Your task to perform on an android device: toggle priority inbox in the gmail app Image 0: 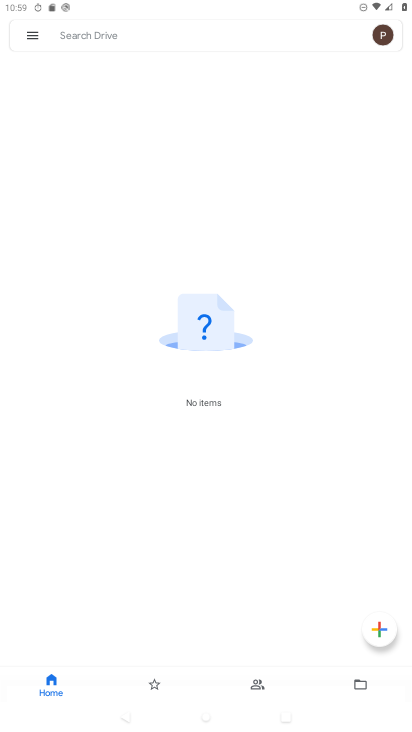
Step 0: press home button
Your task to perform on an android device: toggle priority inbox in the gmail app Image 1: 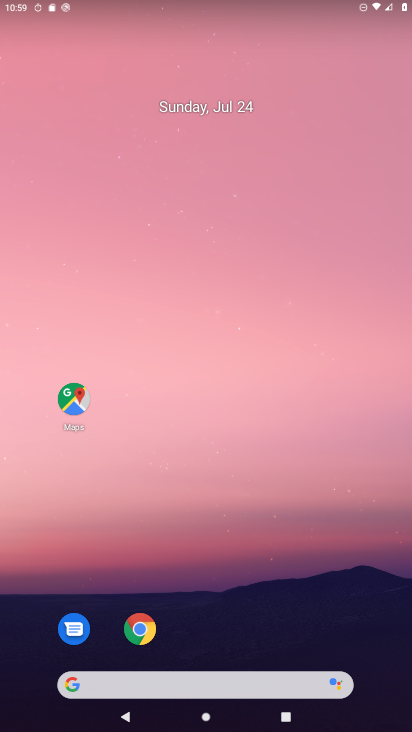
Step 1: drag from (221, 625) to (310, 55)
Your task to perform on an android device: toggle priority inbox in the gmail app Image 2: 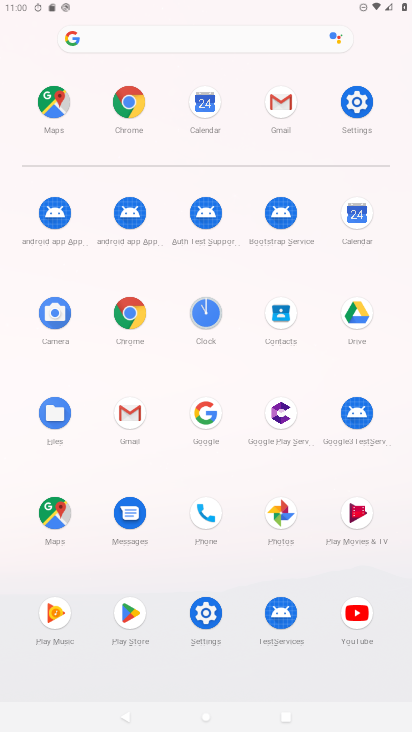
Step 2: click (134, 430)
Your task to perform on an android device: toggle priority inbox in the gmail app Image 3: 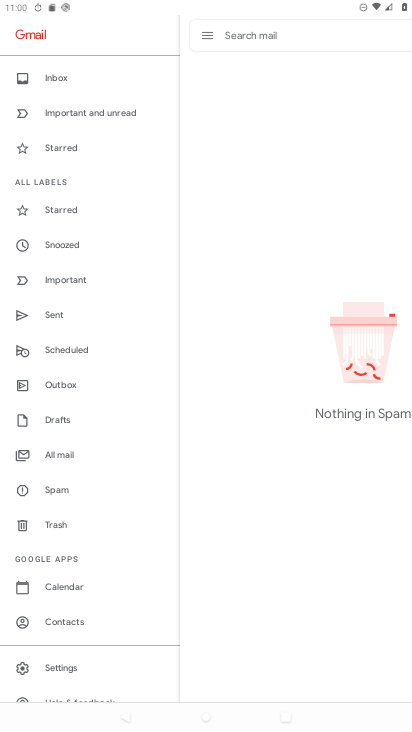
Step 3: click (78, 670)
Your task to perform on an android device: toggle priority inbox in the gmail app Image 4: 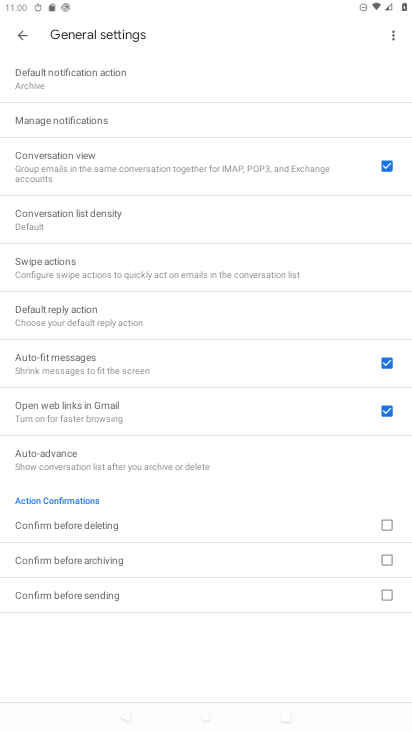
Step 4: click (19, 29)
Your task to perform on an android device: toggle priority inbox in the gmail app Image 5: 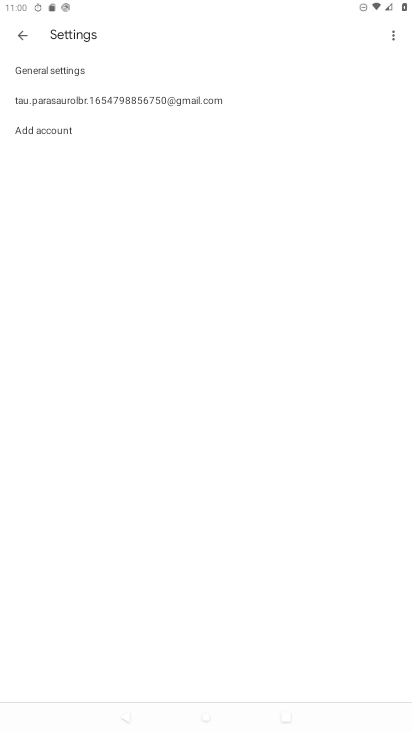
Step 5: click (97, 104)
Your task to perform on an android device: toggle priority inbox in the gmail app Image 6: 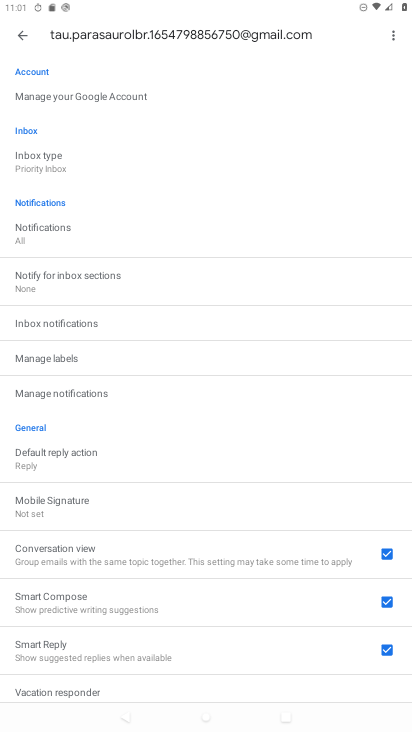
Step 6: click (59, 160)
Your task to perform on an android device: toggle priority inbox in the gmail app Image 7: 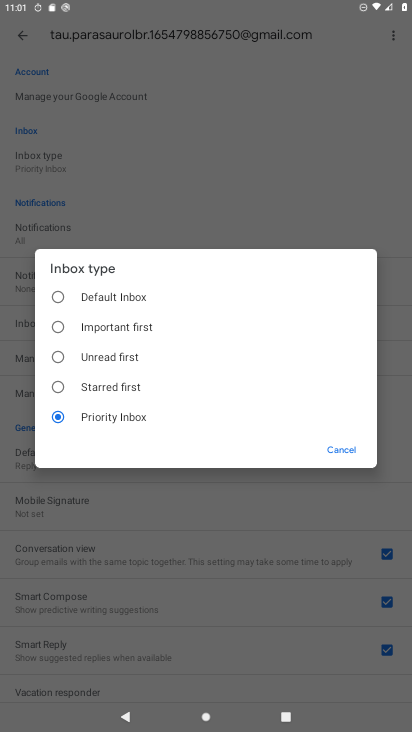
Step 7: click (67, 281)
Your task to perform on an android device: toggle priority inbox in the gmail app Image 8: 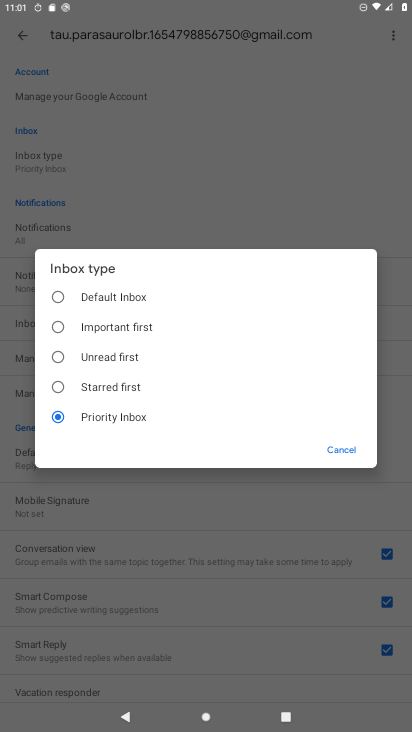
Step 8: click (68, 297)
Your task to perform on an android device: toggle priority inbox in the gmail app Image 9: 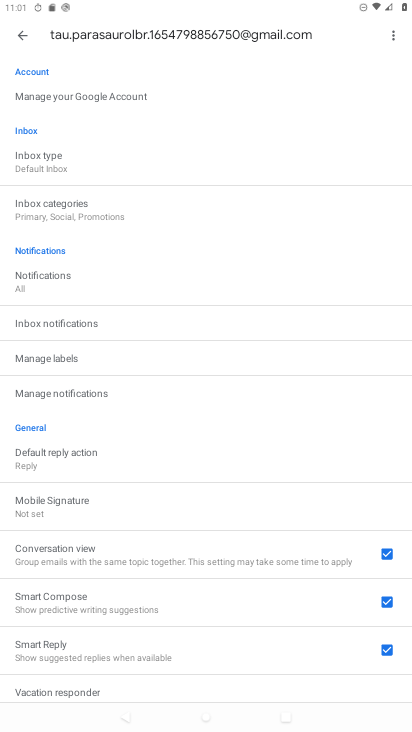
Step 9: task complete